Your task to perform on an android device: show emergency info Image 0: 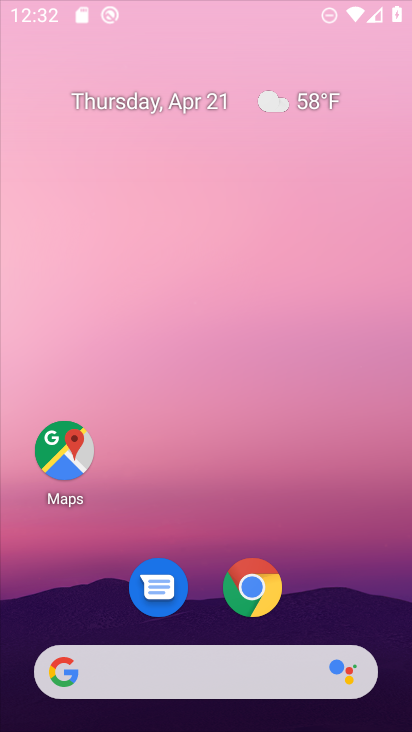
Step 0: click (290, 307)
Your task to perform on an android device: show emergency info Image 1: 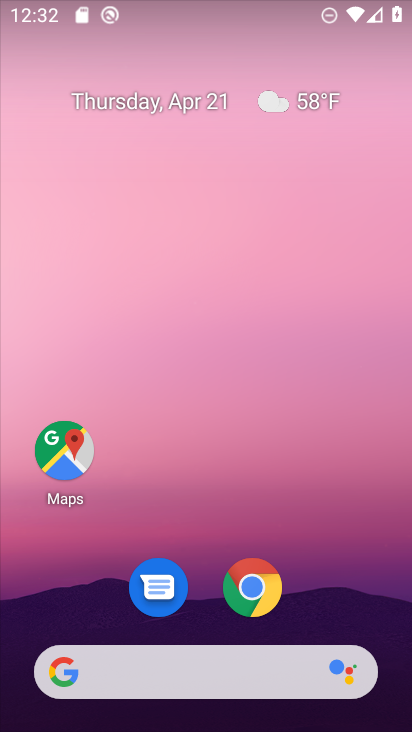
Step 1: drag from (199, 622) to (278, 7)
Your task to perform on an android device: show emergency info Image 2: 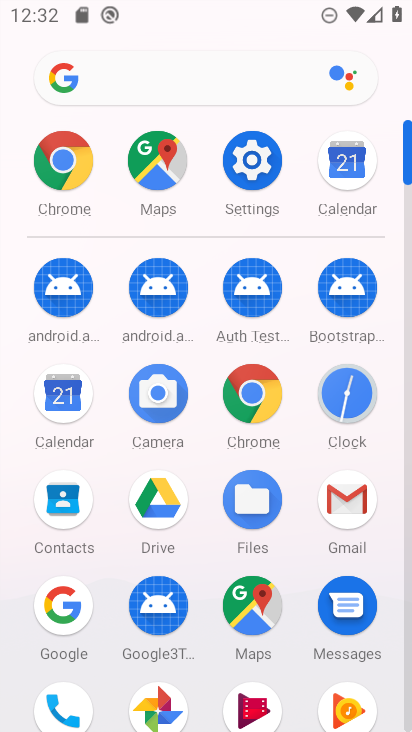
Step 2: click (254, 161)
Your task to perform on an android device: show emergency info Image 3: 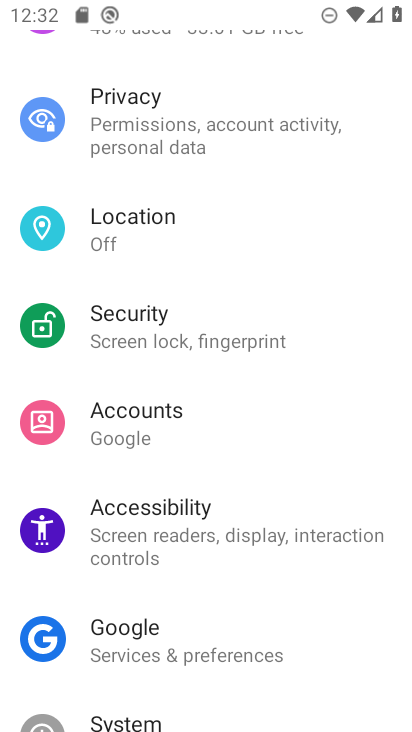
Step 3: drag from (161, 613) to (224, 169)
Your task to perform on an android device: show emergency info Image 4: 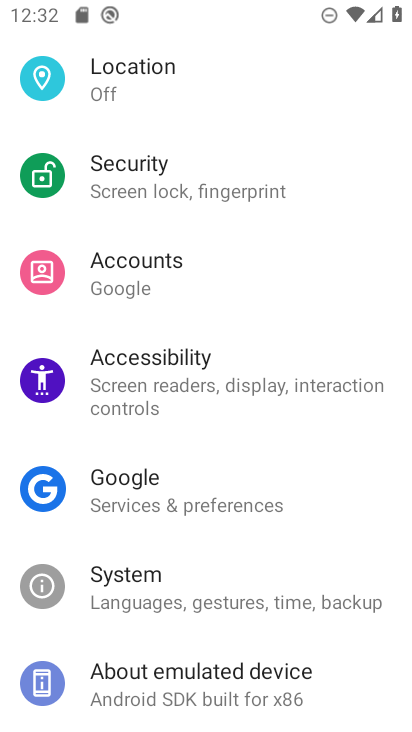
Step 4: click (170, 697)
Your task to perform on an android device: show emergency info Image 5: 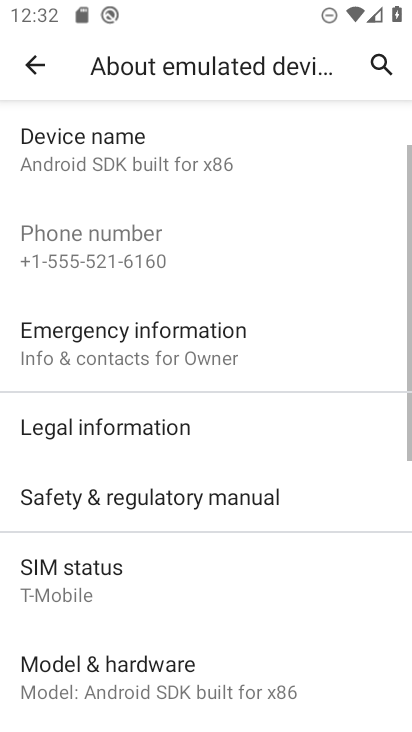
Step 5: click (144, 356)
Your task to perform on an android device: show emergency info Image 6: 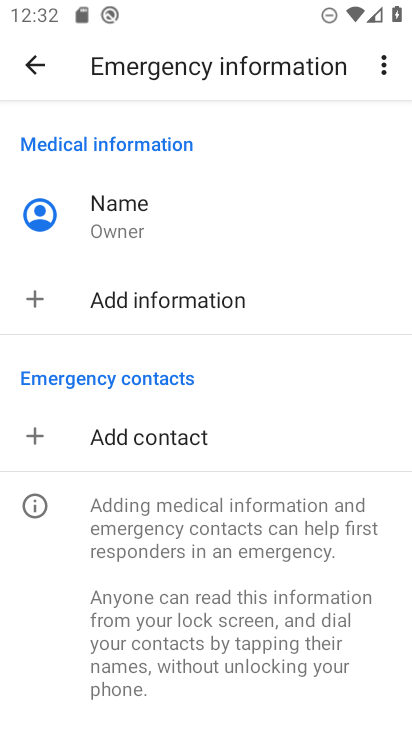
Step 6: task complete